Your task to perform on an android device: open the mobile data screen to see how much data has been used Image 0: 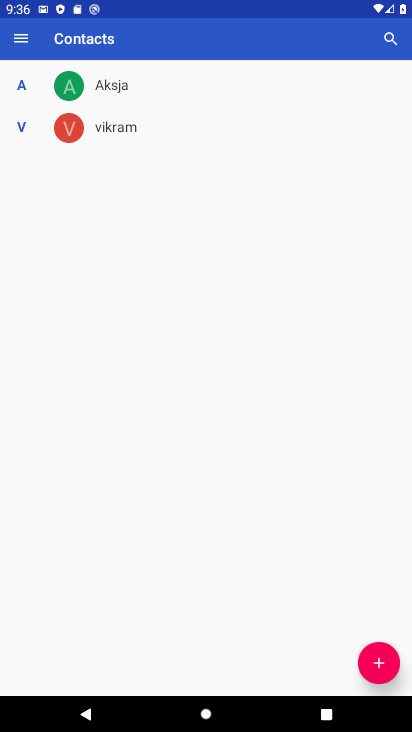
Step 0: press home button
Your task to perform on an android device: open the mobile data screen to see how much data has been used Image 1: 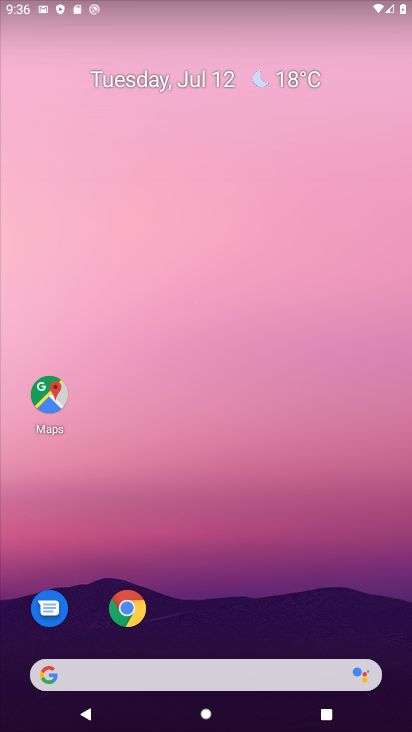
Step 1: drag from (256, 546) to (205, 33)
Your task to perform on an android device: open the mobile data screen to see how much data has been used Image 2: 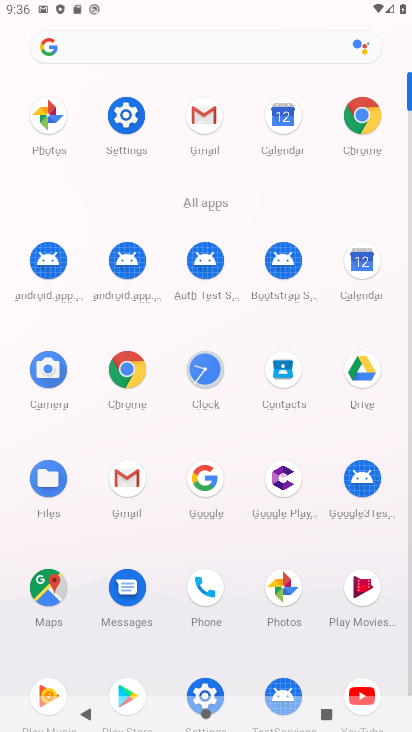
Step 2: click (126, 118)
Your task to perform on an android device: open the mobile data screen to see how much data has been used Image 3: 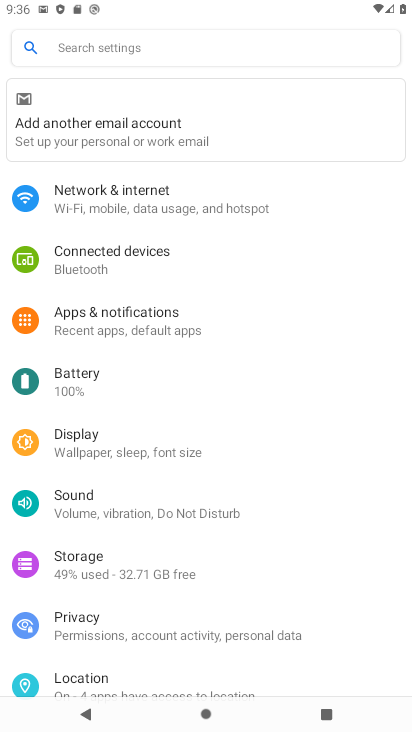
Step 3: click (126, 205)
Your task to perform on an android device: open the mobile data screen to see how much data has been used Image 4: 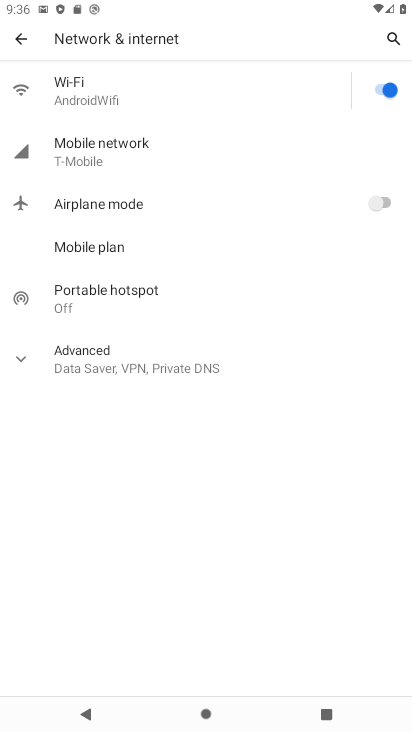
Step 4: click (97, 150)
Your task to perform on an android device: open the mobile data screen to see how much data has been used Image 5: 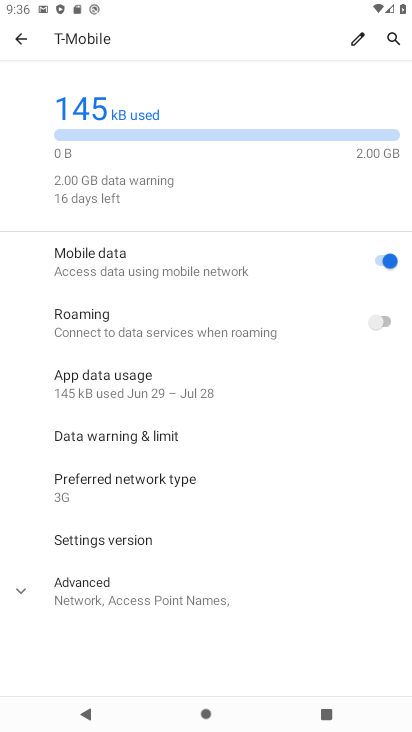
Step 5: task complete